Your task to perform on an android device: Search for Italian restaurants on Maps Image 0: 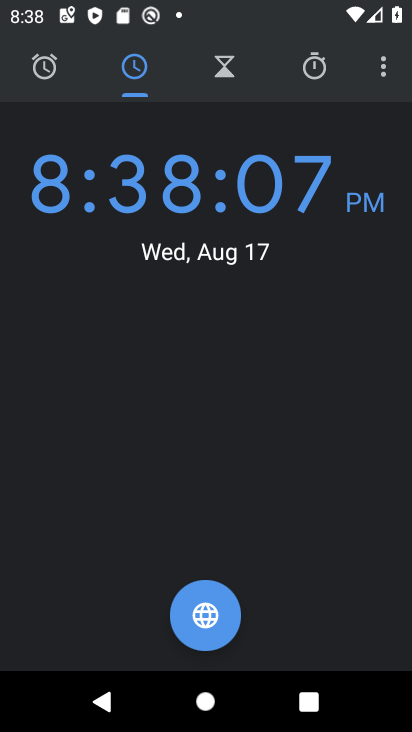
Step 0: press home button
Your task to perform on an android device: Search for Italian restaurants on Maps Image 1: 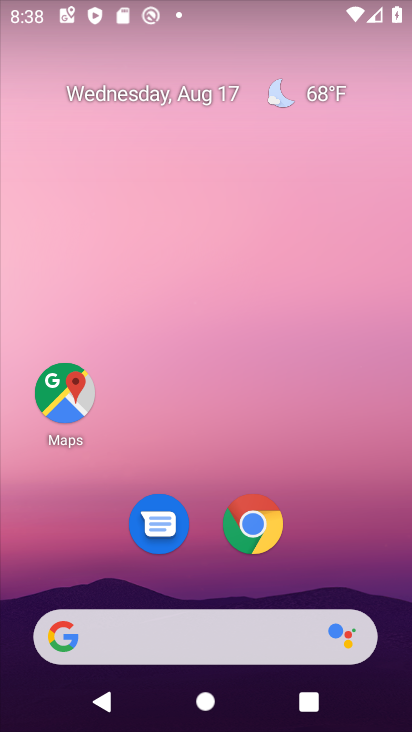
Step 1: click (57, 395)
Your task to perform on an android device: Search for Italian restaurants on Maps Image 2: 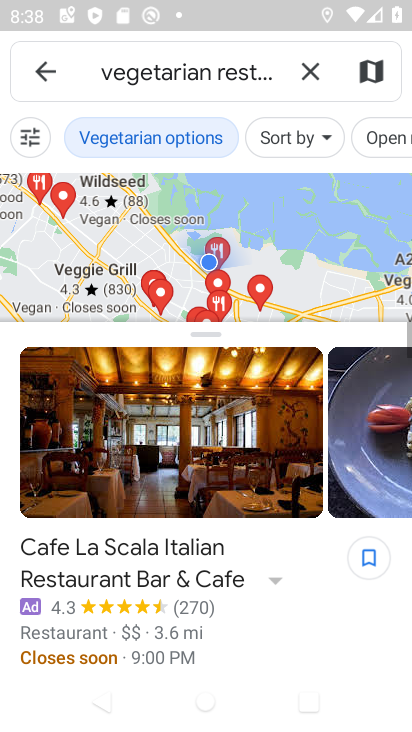
Step 2: click (304, 56)
Your task to perform on an android device: Search for Italian restaurants on Maps Image 3: 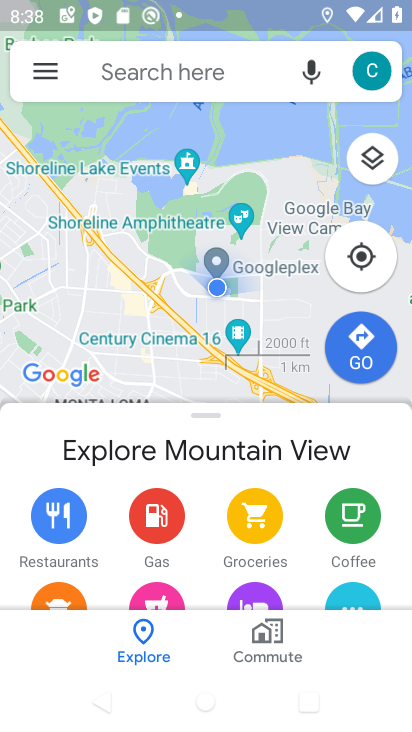
Step 3: click (221, 72)
Your task to perform on an android device: Search for Italian restaurants on Maps Image 4: 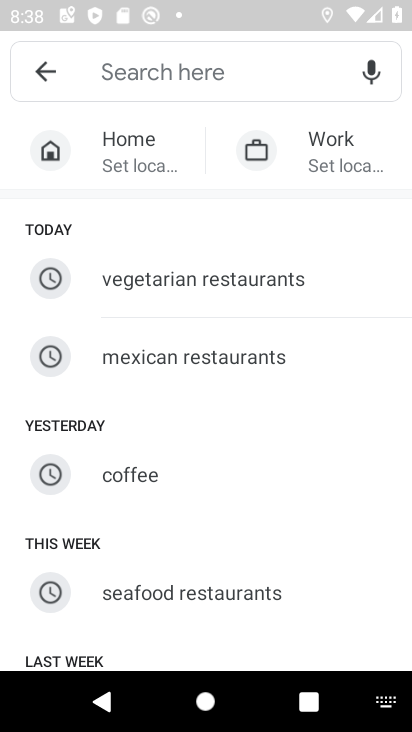
Step 4: drag from (245, 478) to (246, 209)
Your task to perform on an android device: Search for Italian restaurants on Maps Image 5: 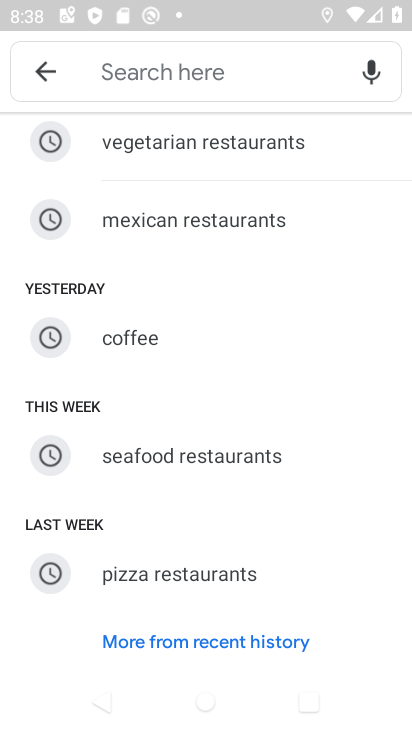
Step 5: drag from (246, 242) to (274, 262)
Your task to perform on an android device: Search for Italian restaurants on Maps Image 6: 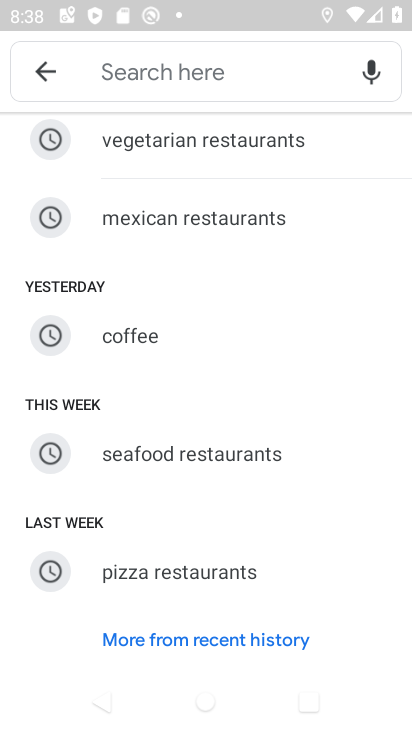
Step 6: click (271, 639)
Your task to perform on an android device: Search for Italian restaurants on Maps Image 7: 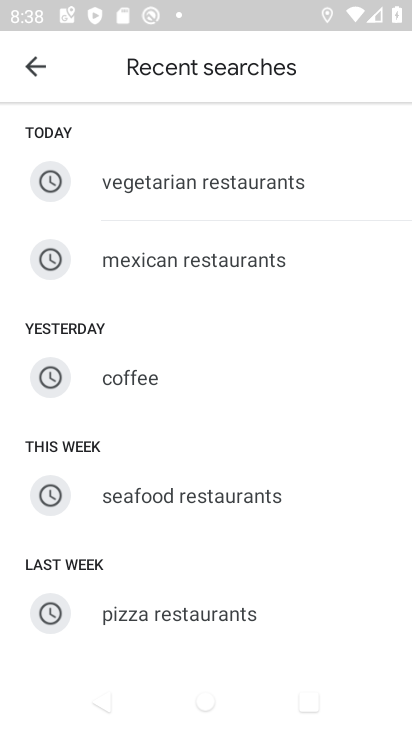
Step 7: drag from (271, 539) to (255, 196)
Your task to perform on an android device: Search for Italian restaurants on Maps Image 8: 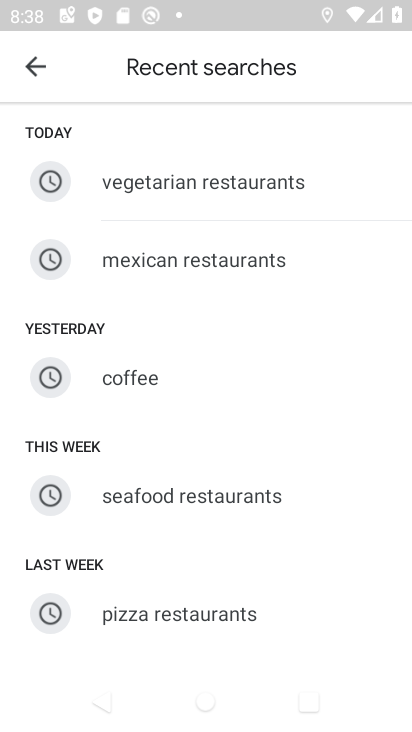
Step 8: drag from (197, 196) to (204, 461)
Your task to perform on an android device: Search for Italian restaurants on Maps Image 9: 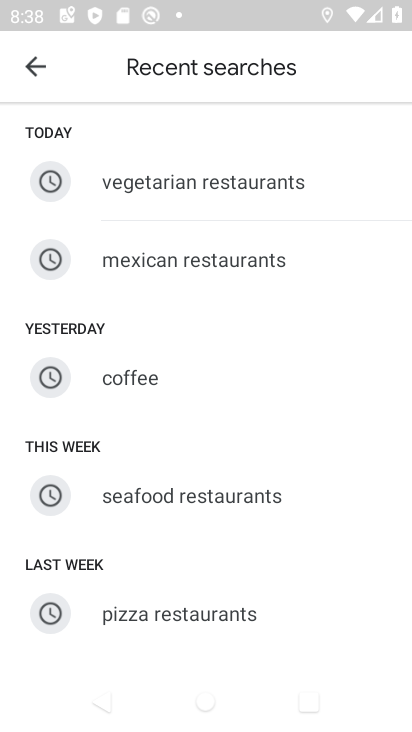
Step 9: click (39, 66)
Your task to perform on an android device: Search for Italian restaurants on Maps Image 10: 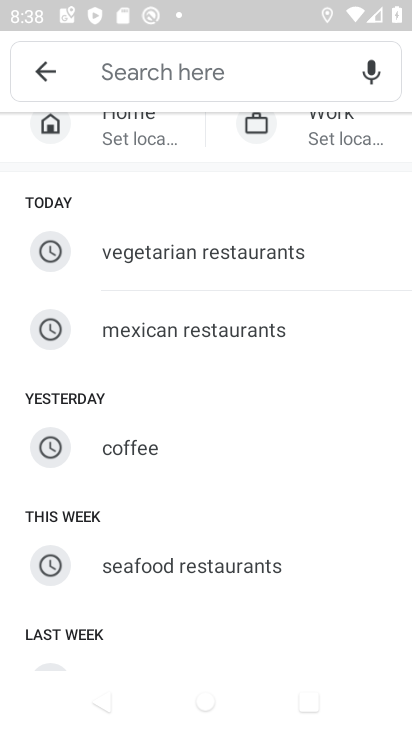
Step 10: click (159, 60)
Your task to perform on an android device: Search for Italian restaurants on Maps Image 11: 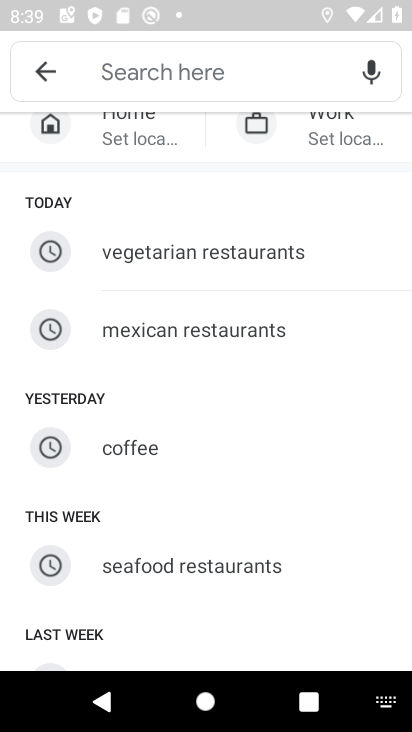
Step 11: type "italian restaurants"
Your task to perform on an android device: Search for Italian restaurants on Maps Image 12: 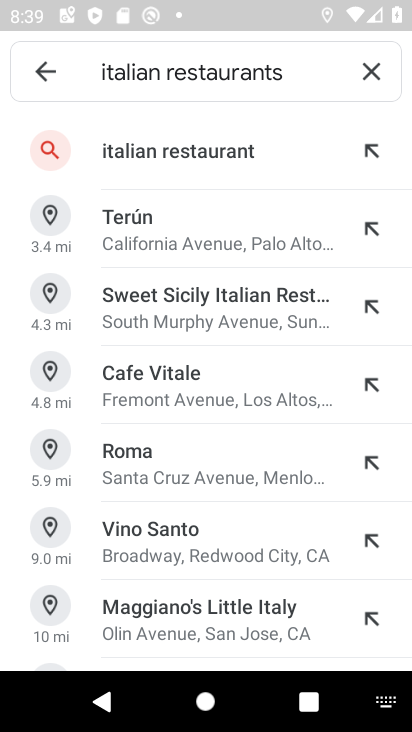
Step 12: click (246, 154)
Your task to perform on an android device: Search for Italian restaurants on Maps Image 13: 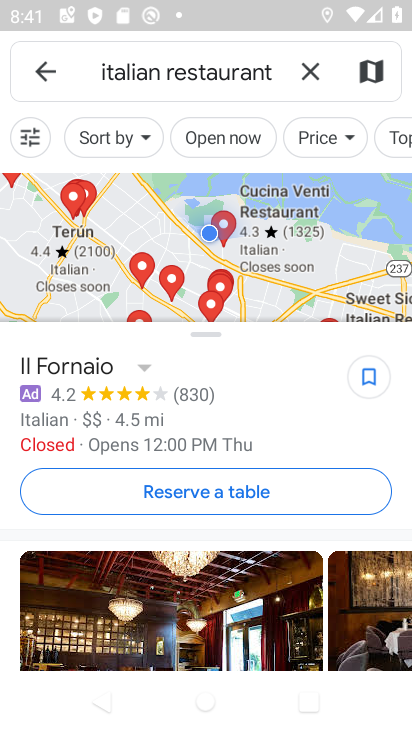
Step 13: task complete